Your task to perform on an android device: Go to battery settings Image 0: 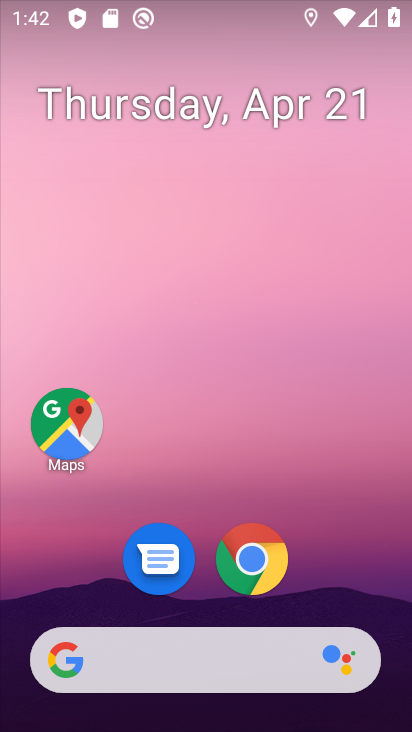
Step 0: drag from (207, 516) to (281, 145)
Your task to perform on an android device: Go to battery settings Image 1: 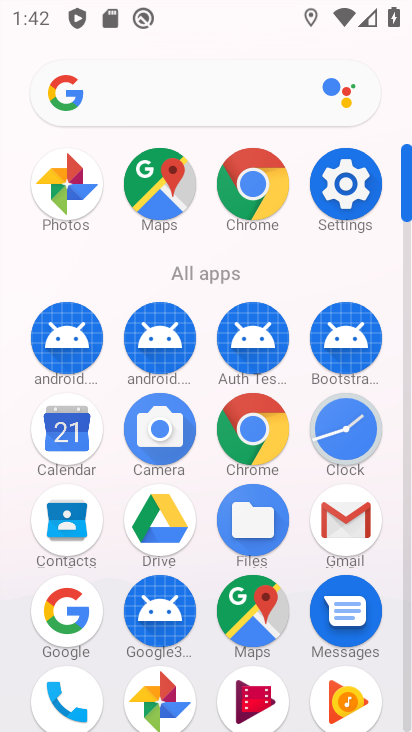
Step 1: click (342, 178)
Your task to perform on an android device: Go to battery settings Image 2: 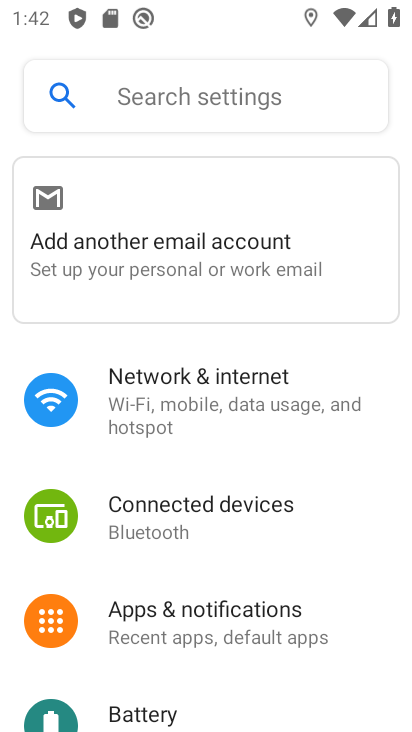
Step 2: click (154, 704)
Your task to perform on an android device: Go to battery settings Image 3: 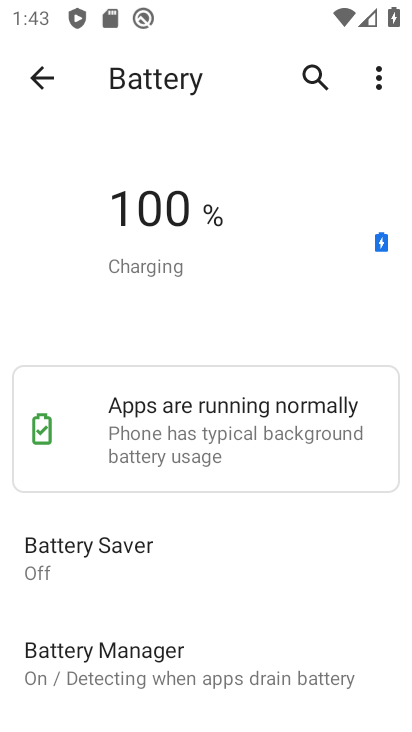
Step 3: task complete